Your task to perform on an android device: find snoozed emails in the gmail app Image 0: 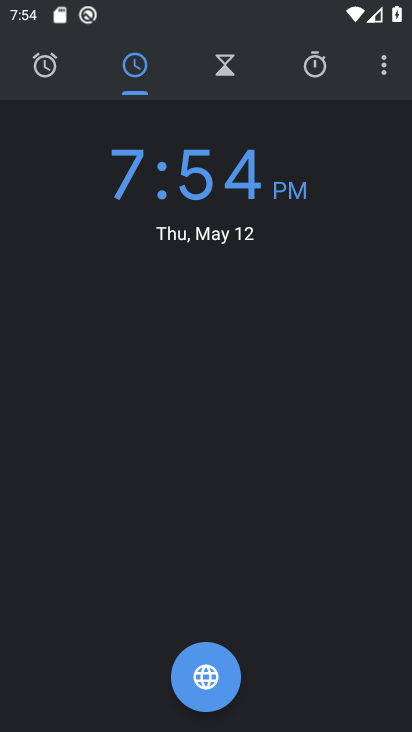
Step 0: press home button
Your task to perform on an android device: find snoozed emails in the gmail app Image 1: 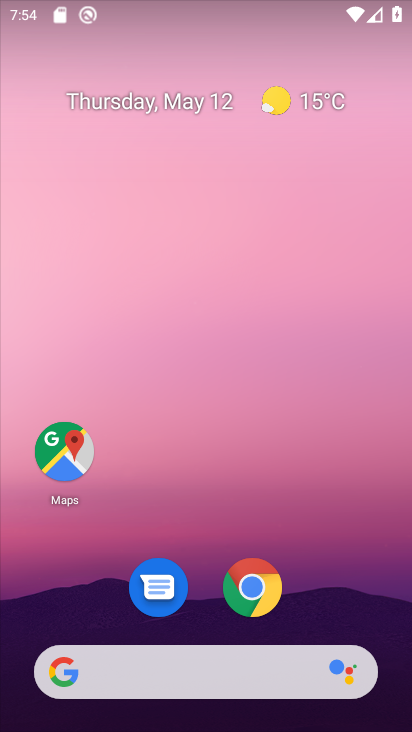
Step 1: drag from (355, 636) to (290, 41)
Your task to perform on an android device: find snoozed emails in the gmail app Image 2: 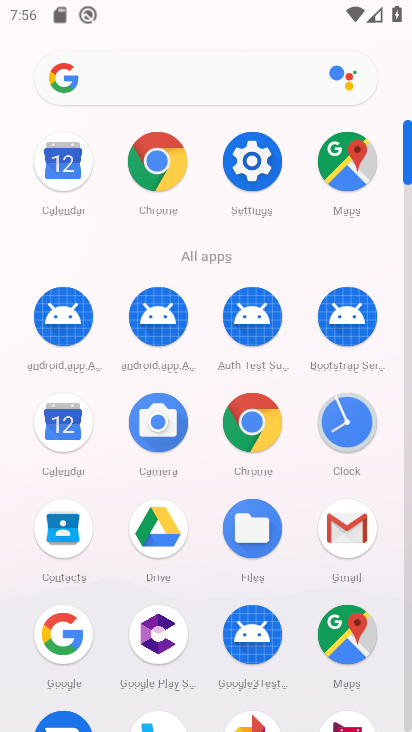
Step 2: click (353, 535)
Your task to perform on an android device: find snoozed emails in the gmail app Image 3: 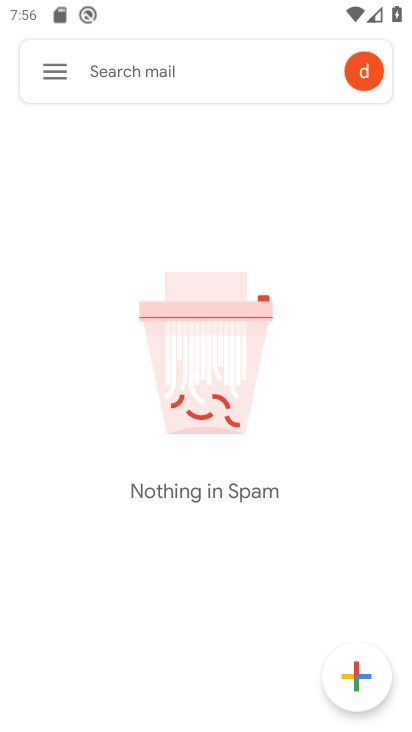
Step 3: click (56, 63)
Your task to perform on an android device: find snoozed emails in the gmail app Image 4: 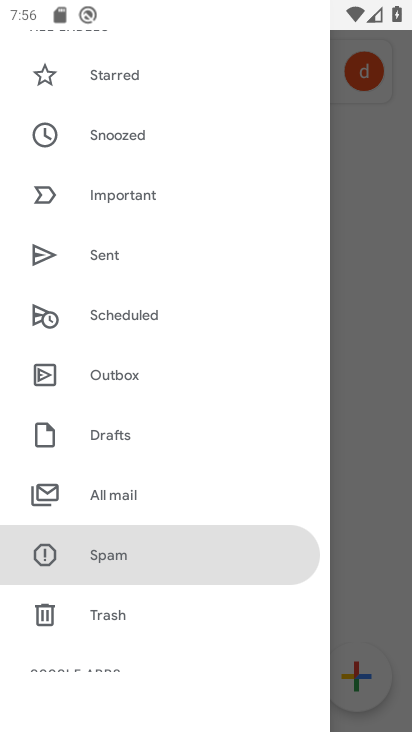
Step 4: click (123, 131)
Your task to perform on an android device: find snoozed emails in the gmail app Image 5: 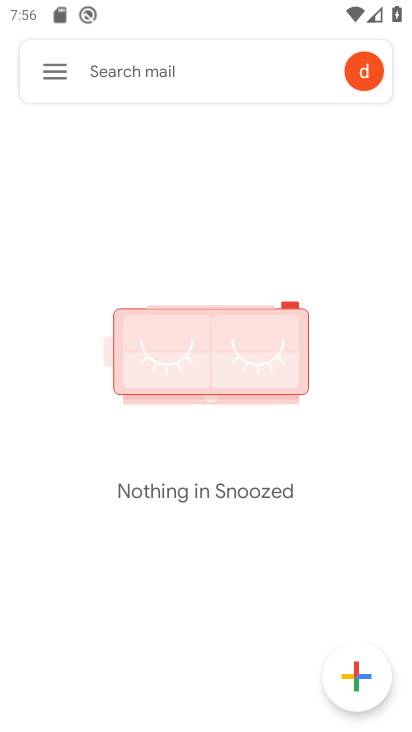
Step 5: task complete